Your task to perform on an android device: Open the calendar app, open the side menu, and click the "Day" option Image 0: 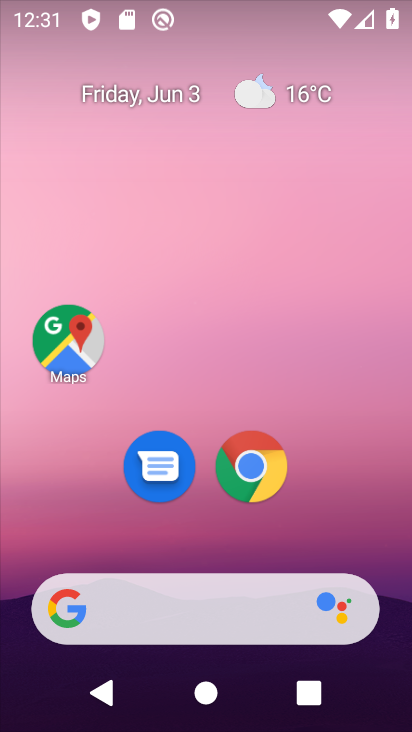
Step 0: drag from (154, 576) to (123, 270)
Your task to perform on an android device: Open the calendar app, open the side menu, and click the "Day" option Image 1: 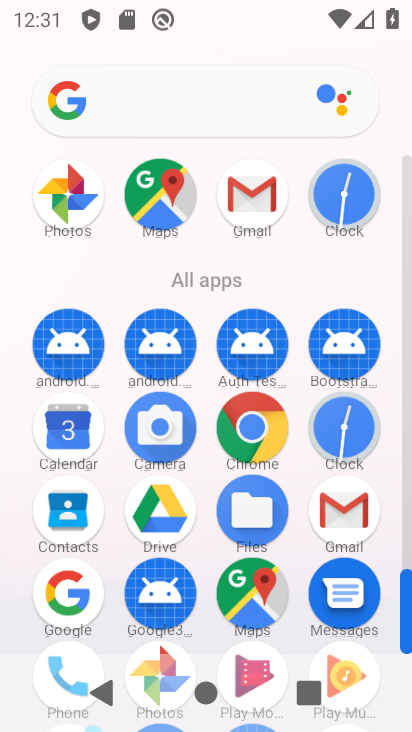
Step 1: click (73, 424)
Your task to perform on an android device: Open the calendar app, open the side menu, and click the "Day" option Image 2: 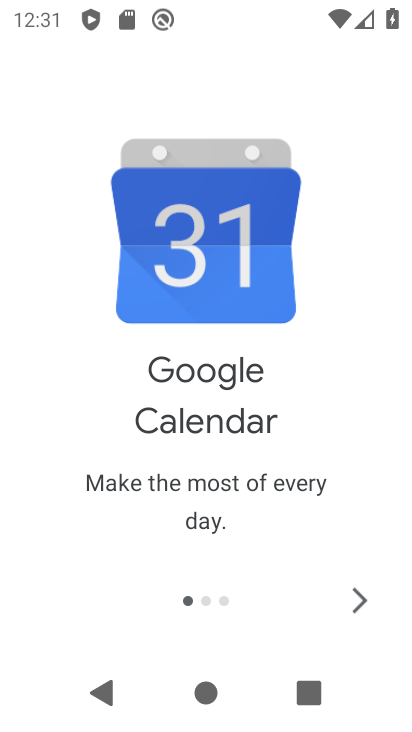
Step 2: click (351, 609)
Your task to perform on an android device: Open the calendar app, open the side menu, and click the "Day" option Image 3: 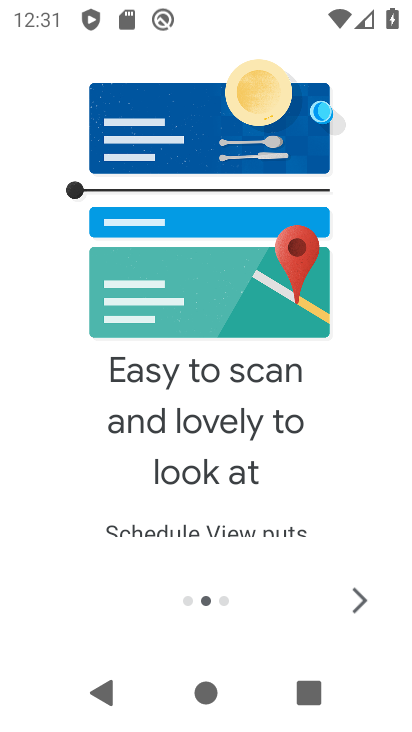
Step 3: click (351, 609)
Your task to perform on an android device: Open the calendar app, open the side menu, and click the "Day" option Image 4: 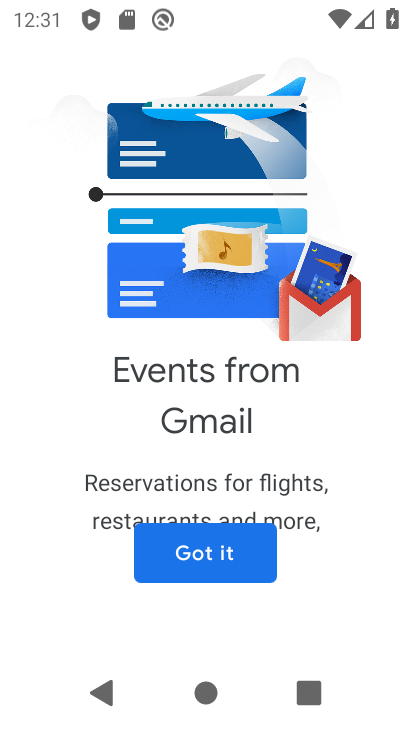
Step 4: click (232, 546)
Your task to perform on an android device: Open the calendar app, open the side menu, and click the "Day" option Image 5: 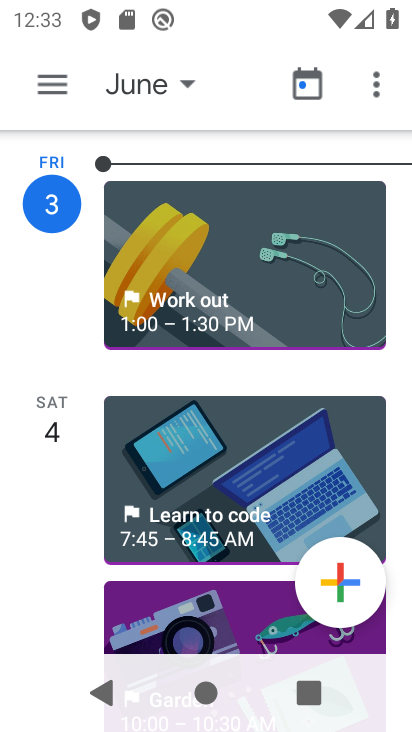
Step 5: click (49, 74)
Your task to perform on an android device: Open the calendar app, open the side menu, and click the "Day" option Image 6: 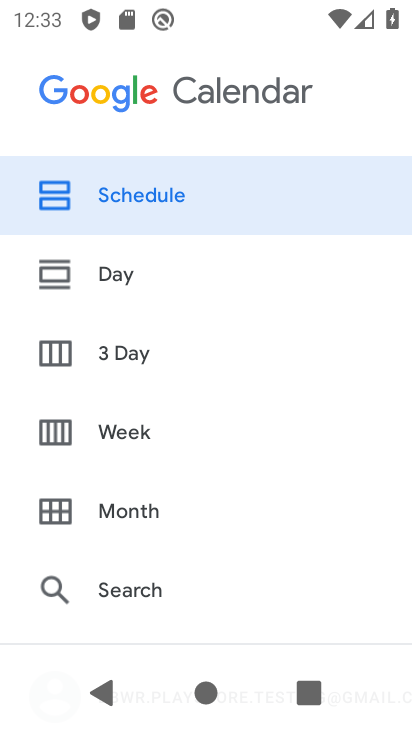
Step 6: click (98, 282)
Your task to perform on an android device: Open the calendar app, open the side menu, and click the "Day" option Image 7: 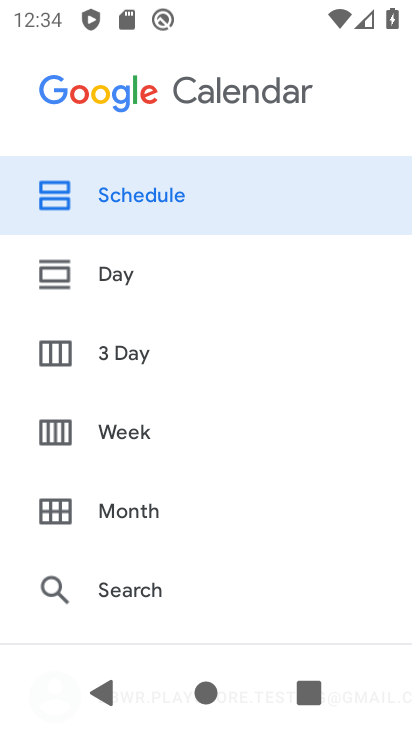
Step 7: click (133, 272)
Your task to perform on an android device: Open the calendar app, open the side menu, and click the "Day" option Image 8: 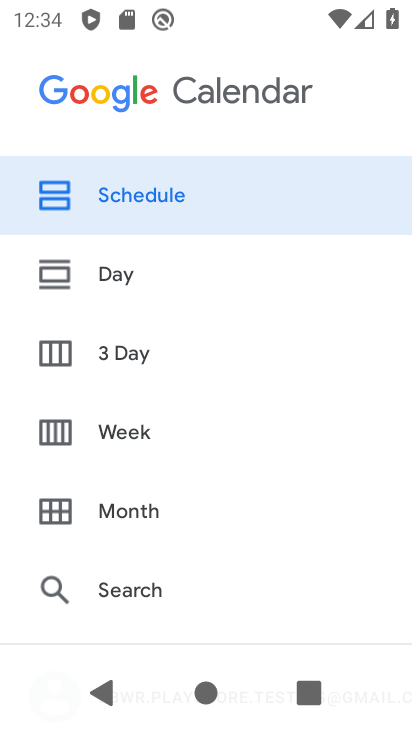
Step 8: click (120, 287)
Your task to perform on an android device: Open the calendar app, open the side menu, and click the "Day" option Image 9: 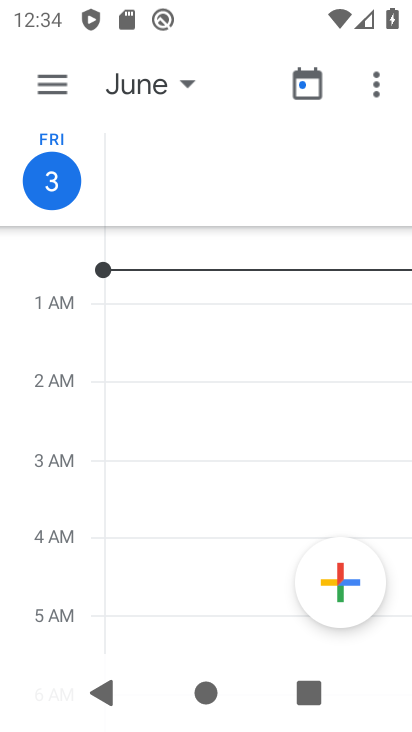
Step 9: task complete